Your task to perform on an android device: turn off improve location accuracy Image 0: 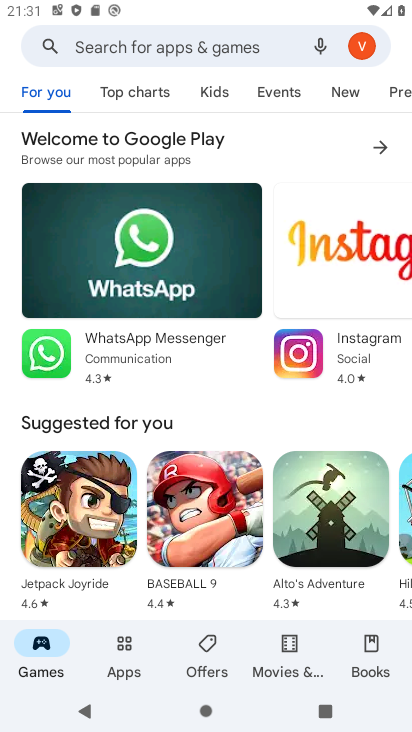
Step 0: press home button
Your task to perform on an android device: turn off improve location accuracy Image 1: 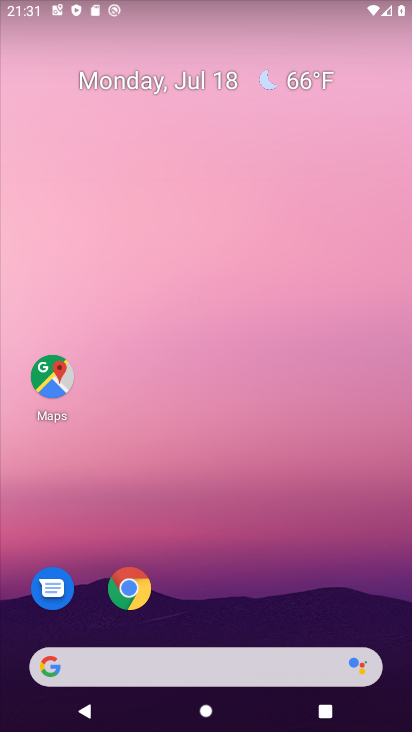
Step 1: drag from (201, 618) to (266, 75)
Your task to perform on an android device: turn off improve location accuracy Image 2: 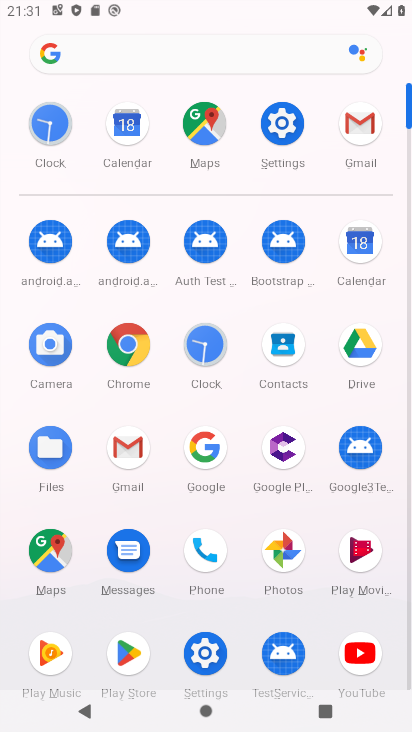
Step 2: click (210, 650)
Your task to perform on an android device: turn off improve location accuracy Image 3: 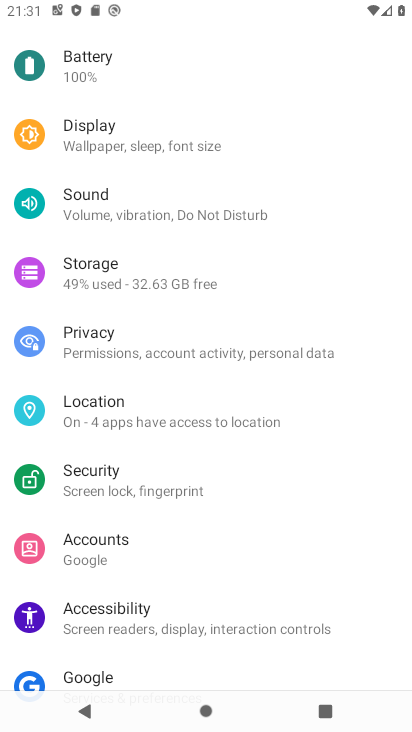
Step 3: click (156, 417)
Your task to perform on an android device: turn off improve location accuracy Image 4: 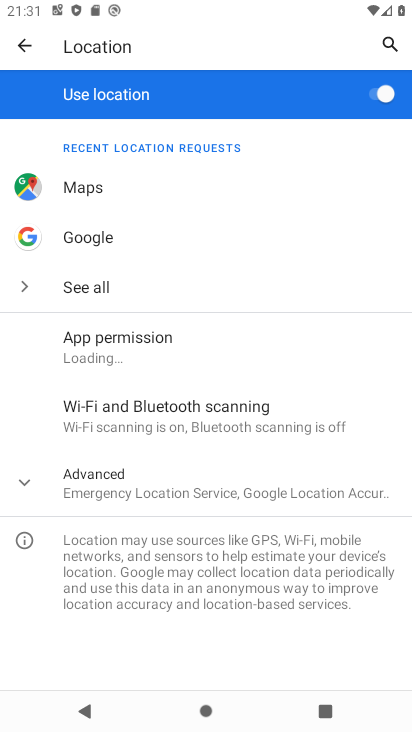
Step 4: click (136, 488)
Your task to perform on an android device: turn off improve location accuracy Image 5: 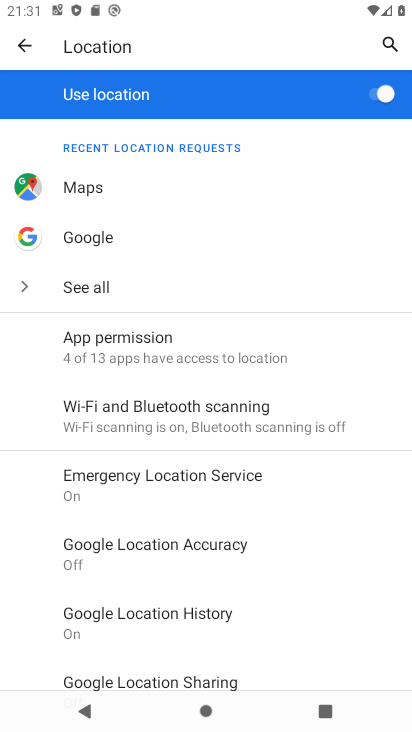
Step 5: click (135, 541)
Your task to perform on an android device: turn off improve location accuracy Image 6: 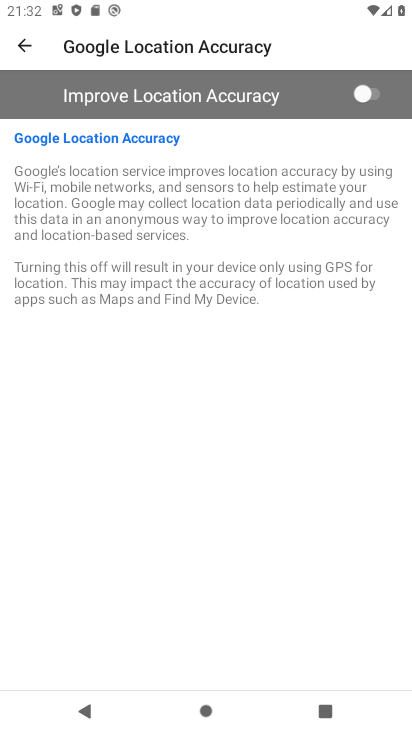
Step 6: task complete